Your task to perform on an android device: Open privacy settings Image 0: 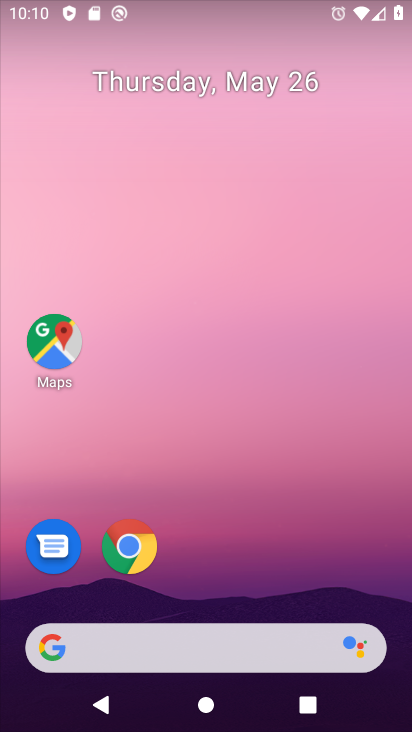
Step 0: drag from (241, 564) to (184, 201)
Your task to perform on an android device: Open privacy settings Image 1: 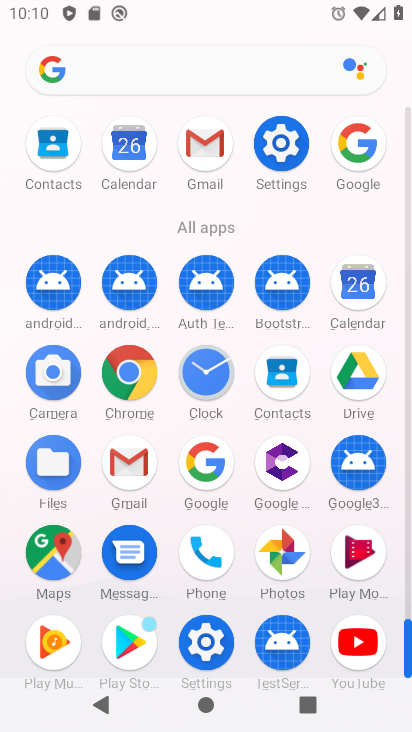
Step 1: click (282, 143)
Your task to perform on an android device: Open privacy settings Image 2: 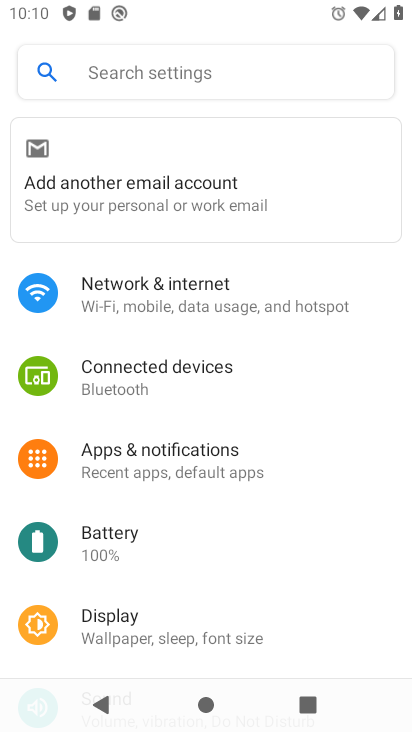
Step 2: drag from (171, 405) to (213, 318)
Your task to perform on an android device: Open privacy settings Image 3: 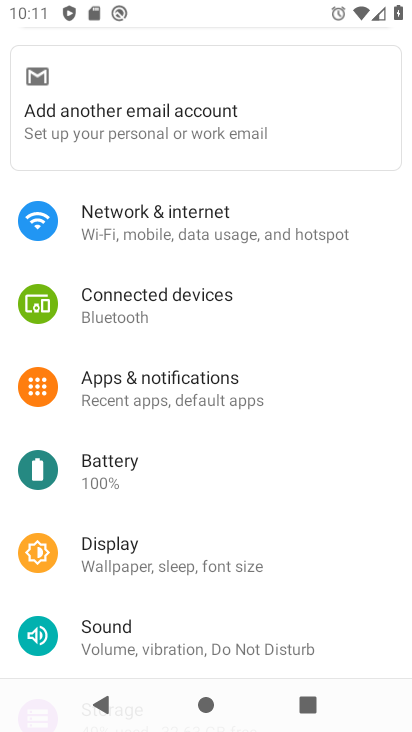
Step 3: drag from (171, 488) to (226, 396)
Your task to perform on an android device: Open privacy settings Image 4: 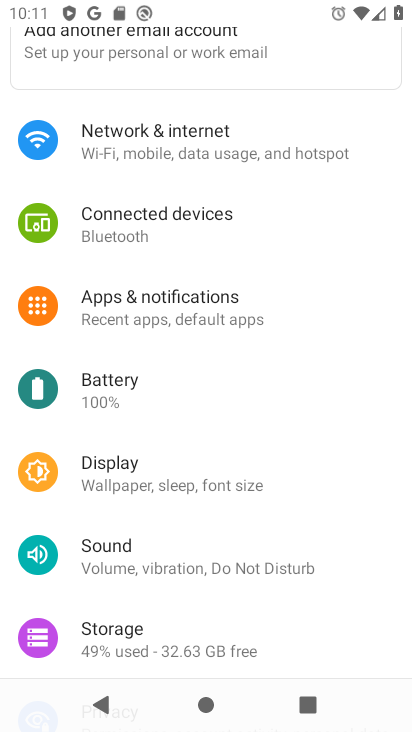
Step 4: drag from (190, 521) to (241, 401)
Your task to perform on an android device: Open privacy settings Image 5: 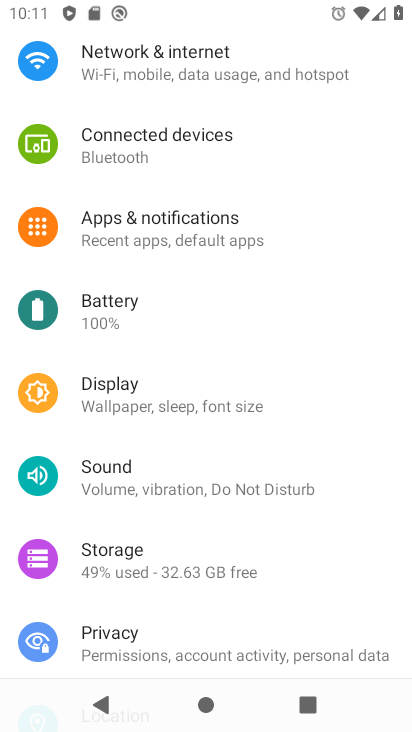
Step 5: drag from (181, 515) to (221, 446)
Your task to perform on an android device: Open privacy settings Image 6: 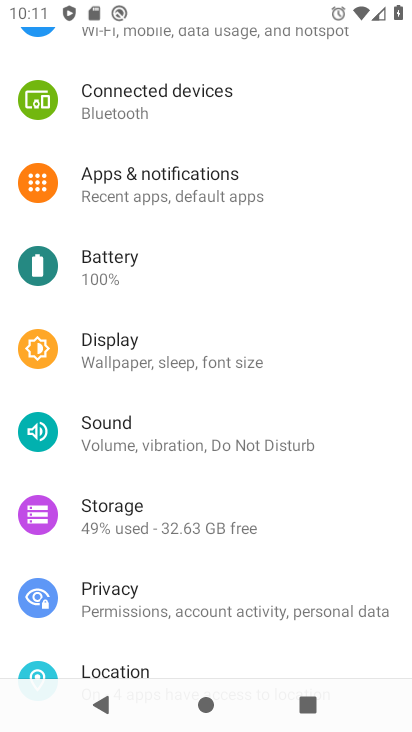
Step 6: click (212, 604)
Your task to perform on an android device: Open privacy settings Image 7: 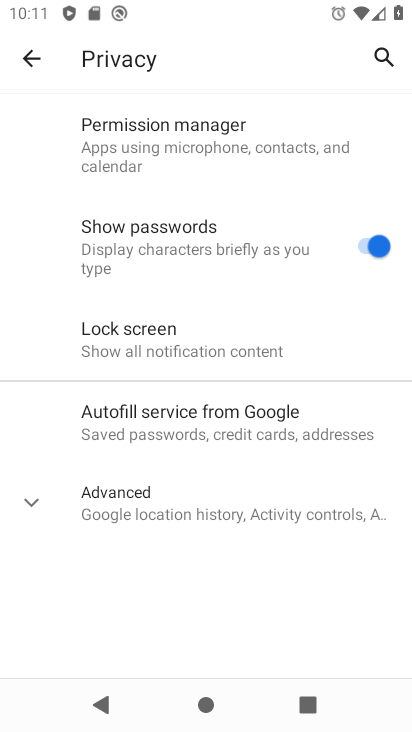
Step 7: task complete